Your task to perform on an android device: turn on wifi Image 0: 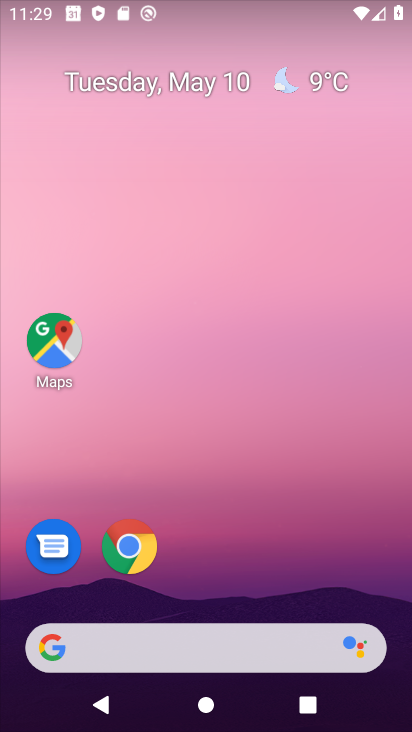
Step 0: drag from (211, 562) to (201, 180)
Your task to perform on an android device: turn on wifi Image 1: 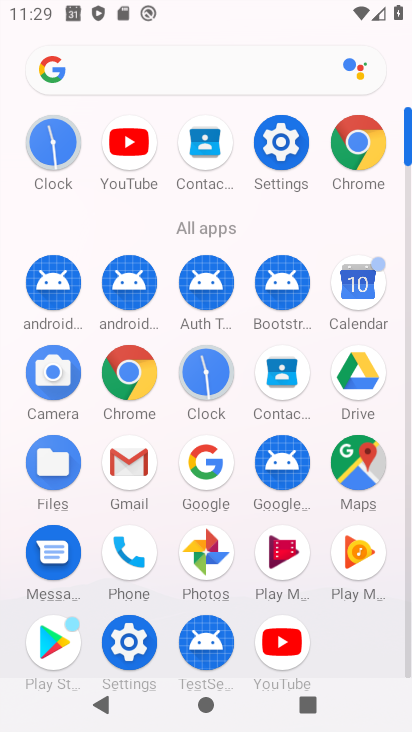
Step 1: click (264, 154)
Your task to perform on an android device: turn on wifi Image 2: 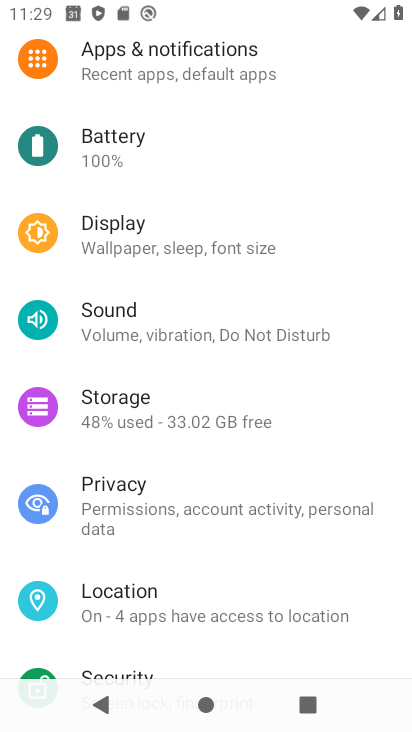
Step 2: drag from (219, 145) to (226, 529)
Your task to perform on an android device: turn on wifi Image 3: 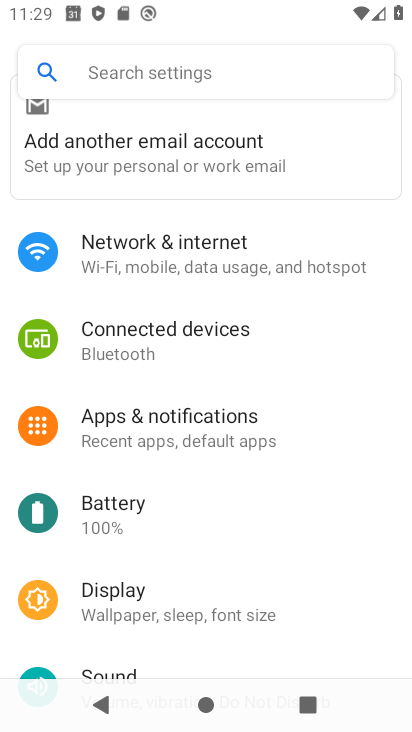
Step 3: click (210, 267)
Your task to perform on an android device: turn on wifi Image 4: 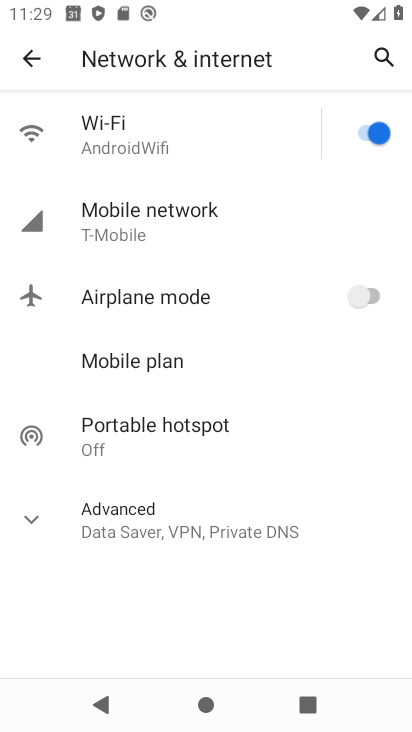
Step 4: task complete